Your task to perform on an android device: search for starred emails in the gmail app Image 0: 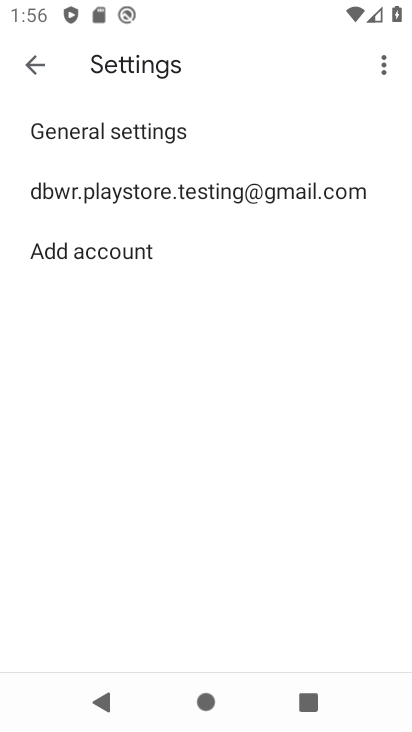
Step 0: click (36, 68)
Your task to perform on an android device: search for starred emails in the gmail app Image 1: 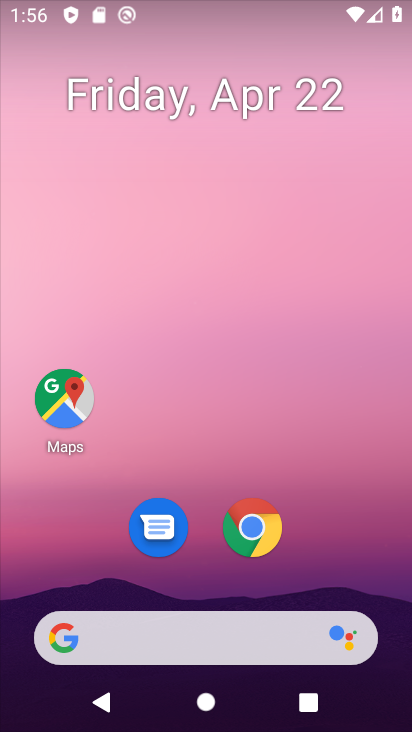
Step 1: drag from (329, 569) to (357, 63)
Your task to perform on an android device: search for starred emails in the gmail app Image 2: 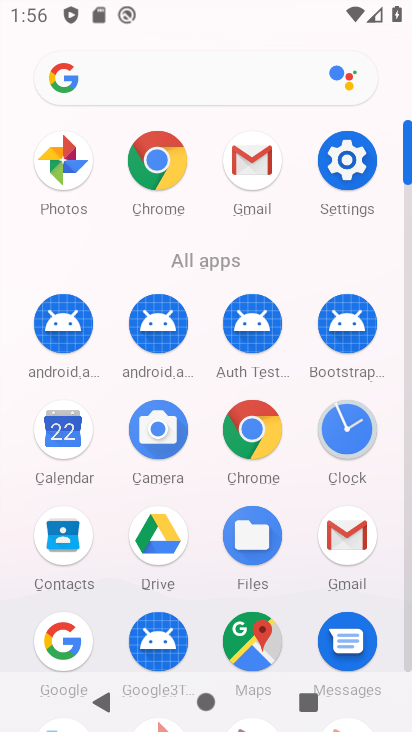
Step 2: drag from (301, 238) to (307, 17)
Your task to perform on an android device: search for starred emails in the gmail app Image 3: 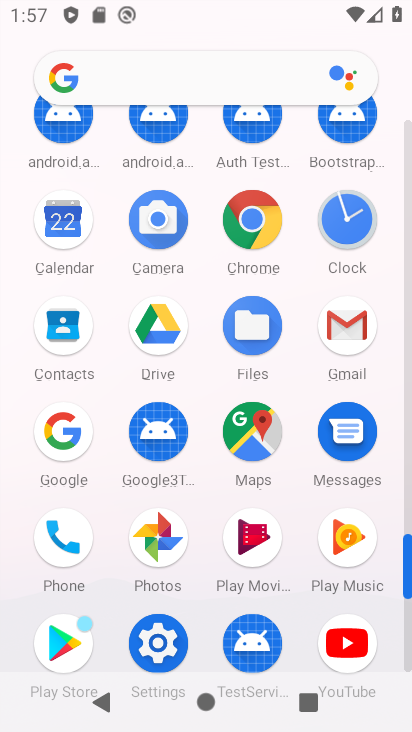
Step 3: click (350, 329)
Your task to perform on an android device: search for starred emails in the gmail app Image 4: 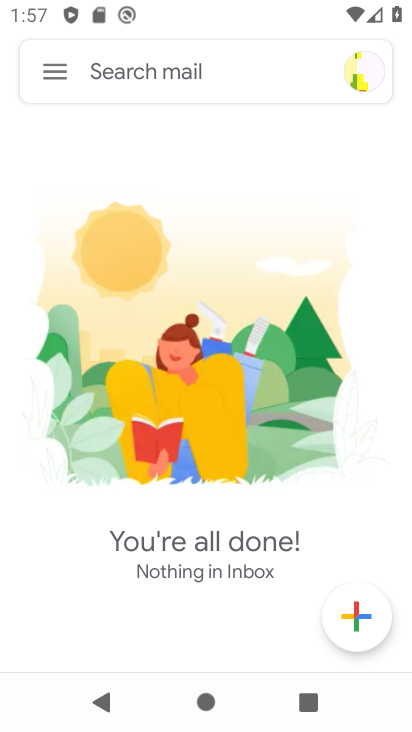
Step 4: task complete